Your task to perform on an android device: toggle data saver in the chrome app Image 0: 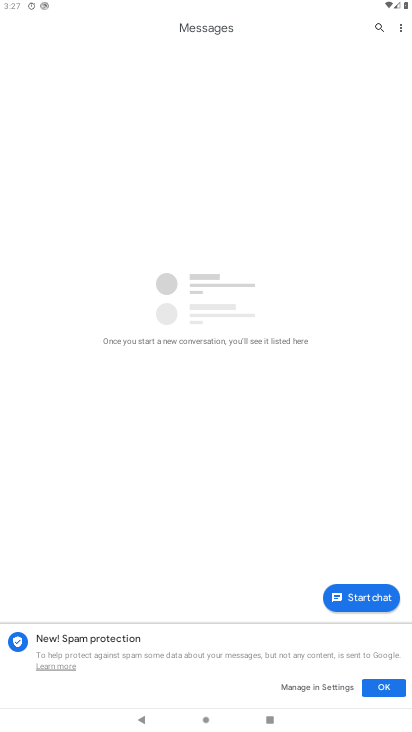
Step 0: press home button
Your task to perform on an android device: toggle data saver in the chrome app Image 1: 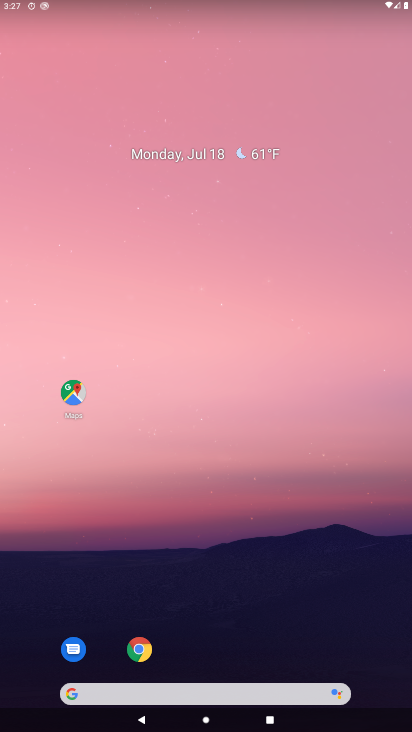
Step 1: drag from (27, 719) to (131, 273)
Your task to perform on an android device: toggle data saver in the chrome app Image 2: 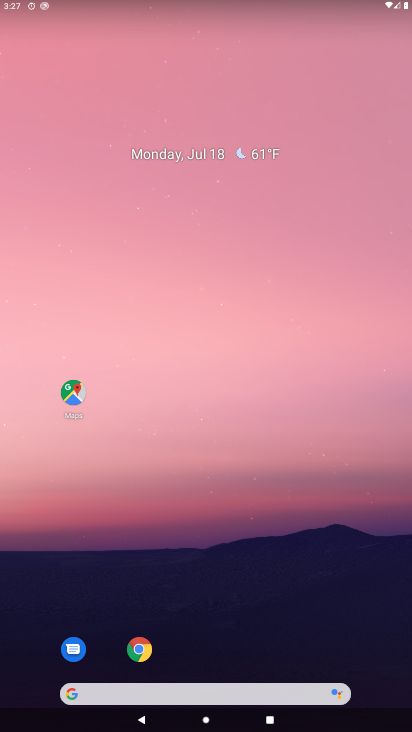
Step 2: click (133, 651)
Your task to perform on an android device: toggle data saver in the chrome app Image 3: 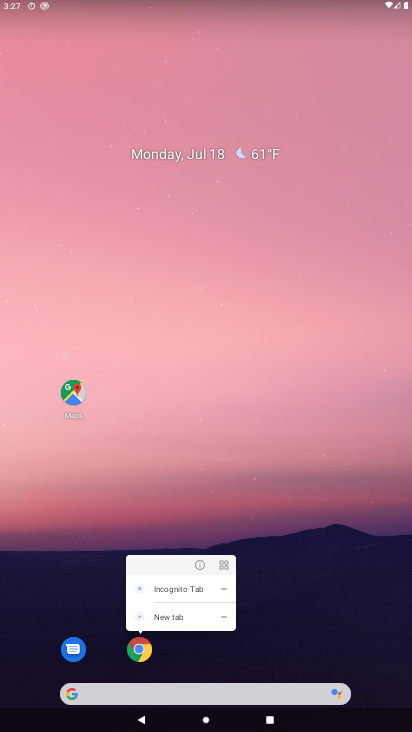
Step 3: click (140, 640)
Your task to perform on an android device: toggle data saver in the chrome app Image 4: 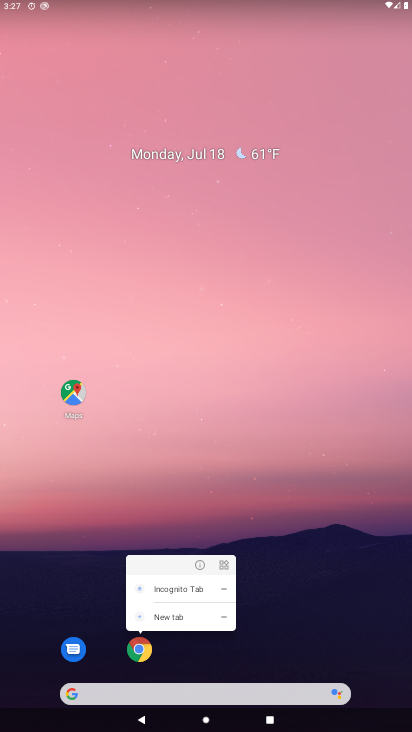
Step 4: task complete